Your task to perform on an android device: check data usage Image 0: 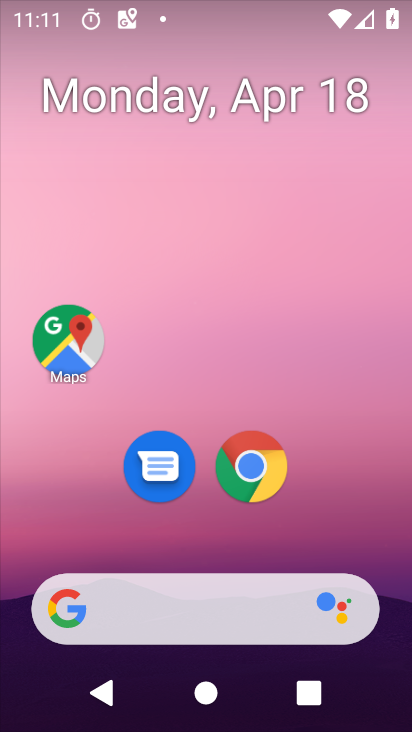
Step 0: drag from (251, 608) to (330, 107)
Your task to perform on an android device: check data usage Image 1: 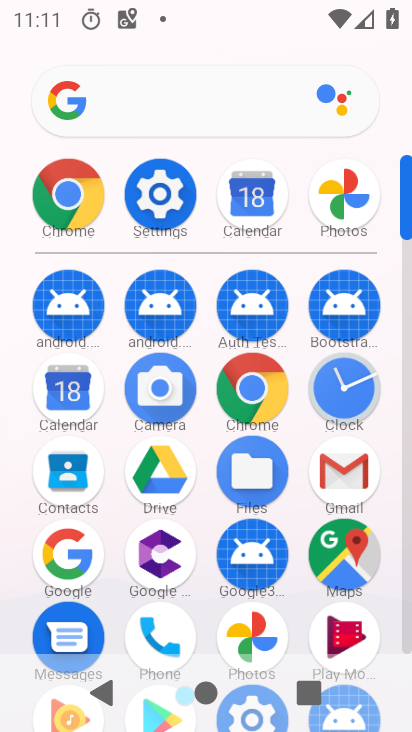
Step 1: click (171, 216)
Your task to perform on an android device: check data usage Image 2: 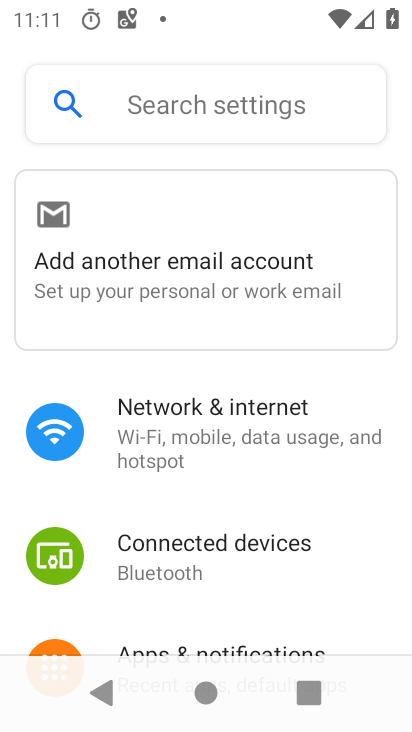
Step 2: drag from (192, 544) to (274, 223)
Your task to perform on an android device: check data usage Image 3: 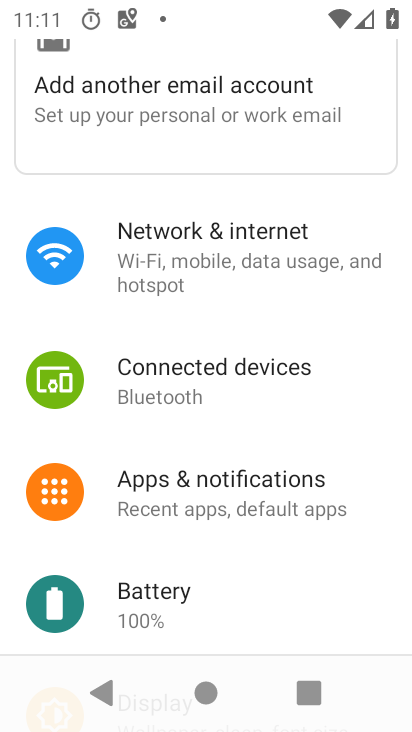
Step 3: click (262, 262)
Your task to perform on an android device: check data usage Image 4: 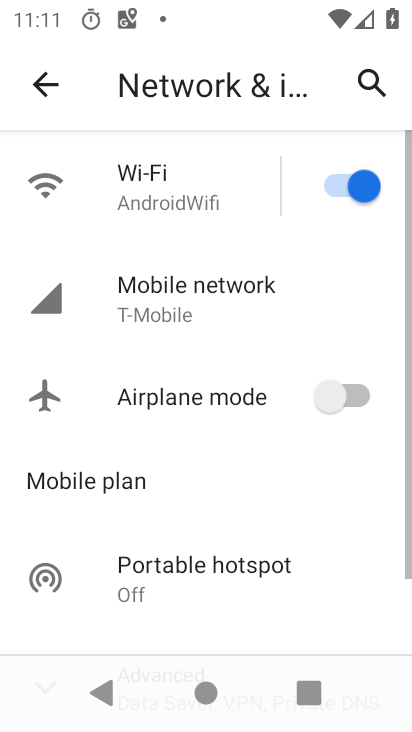
Step 4: click (231, 315)
Your task to perform on an android device: check data usage Image 5: 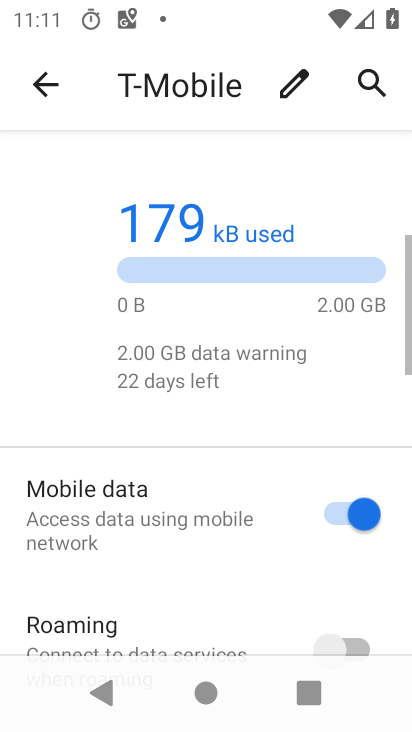
Step 5: drag from (224, 509) to (282, 211)
Your task to perform on an android device: check data usage Image 6: 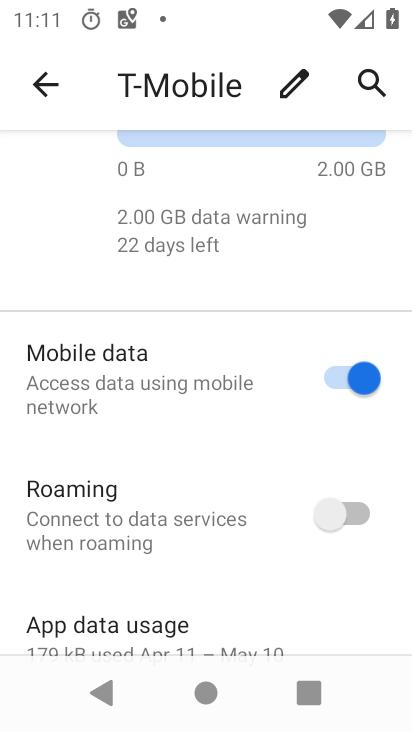
Step 6: drag from (175, 565) to (219, 266)
Your task to perform on an android device: check data usage Image 7: 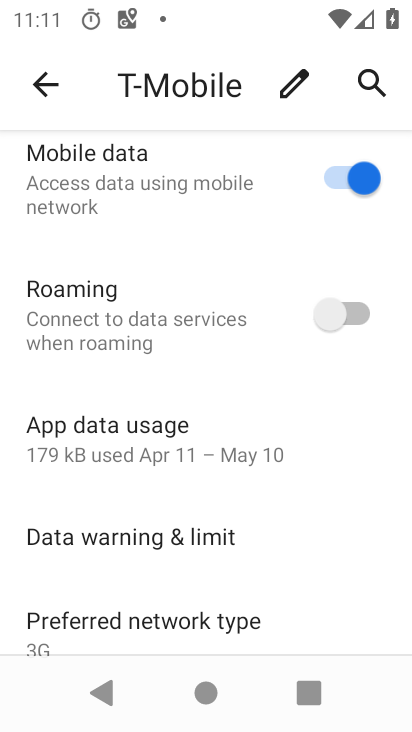
Step 7: click (181, 439)
Your task to perform on an android device: check data usage Image 8: 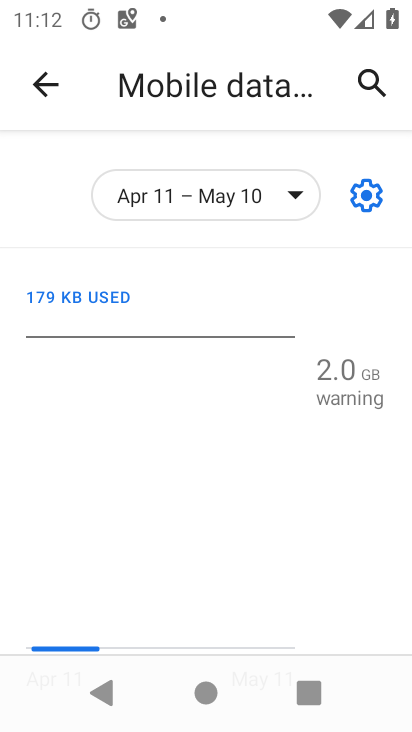
Step 8: task complete